Your task to perform on an android device: Open Google Maps and go to "Timeline" Image 0: 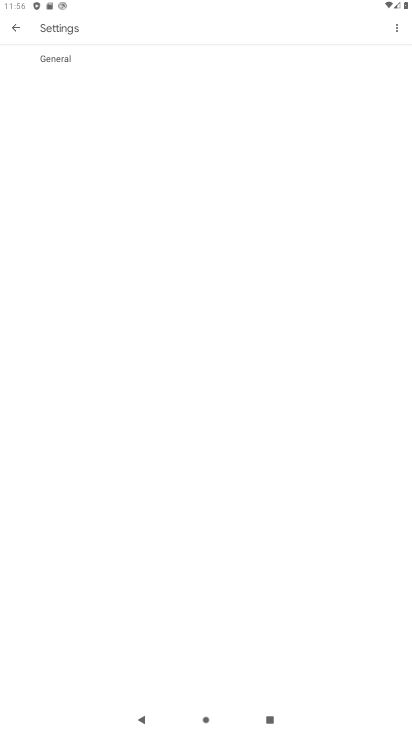
Step 0: press home button
Your task to perform on an android device: Open Google Maps and go to "Timeline" Image 1: 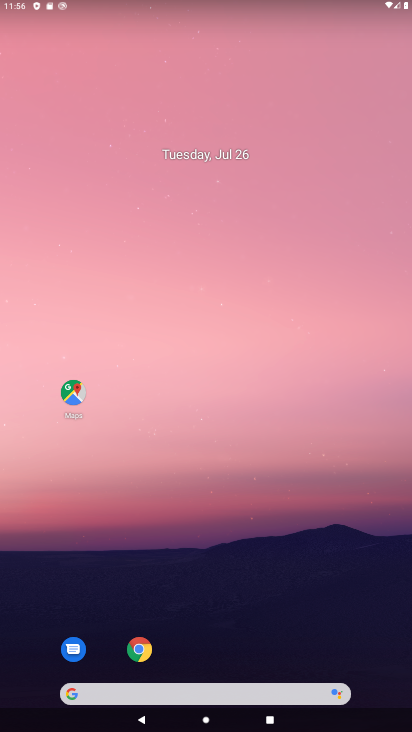
Step 1: click (72, 397)
Your task to perform on an android device: Open Google Maps and go to "Timeline" Image 2: 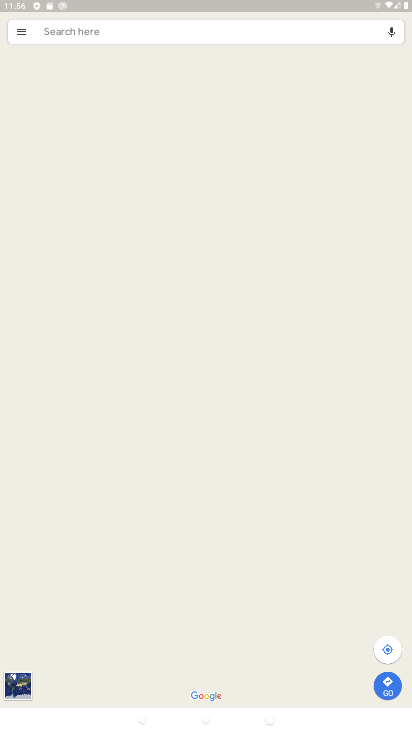
Step 2: click (26, 29)
Your task to perform on an android device: Open Google Maps and go to "Timeline" Image 3: 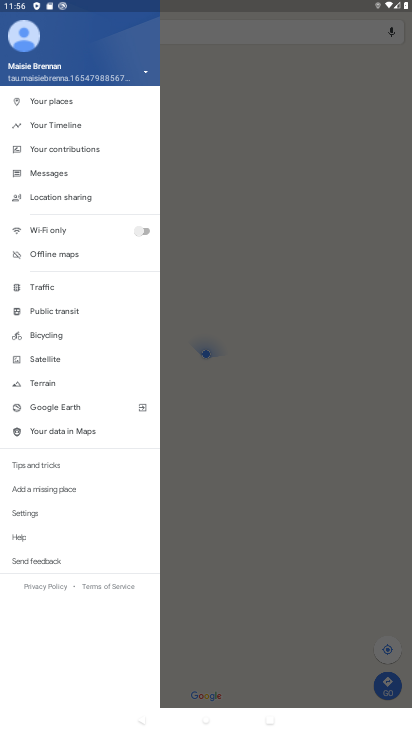
Step 3: click (44, 125)
Your task to perform on an android device: Open Google Maps and go to "Timeline" Image 4: 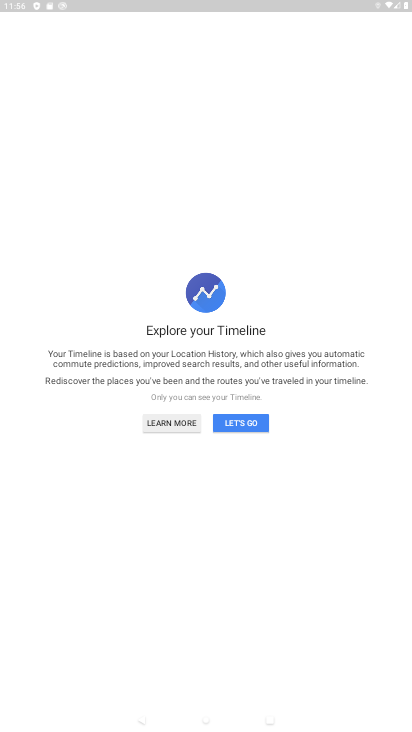
Step 4: click (239, 427)
Your task to perform on an android device: Open Google Maps and go to "Timeline" Image 5: 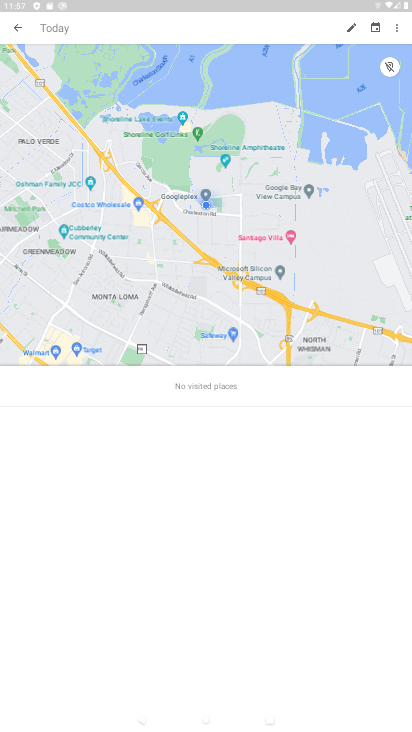
Step 5: task complete